Your task to perform on an android device: turn on location history Image 0: 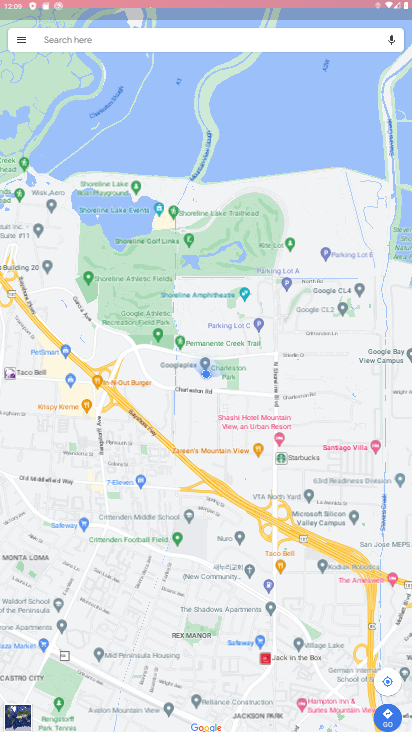
Step 0: press home button
Your task to perform on an android device: turn on location history Image 1: 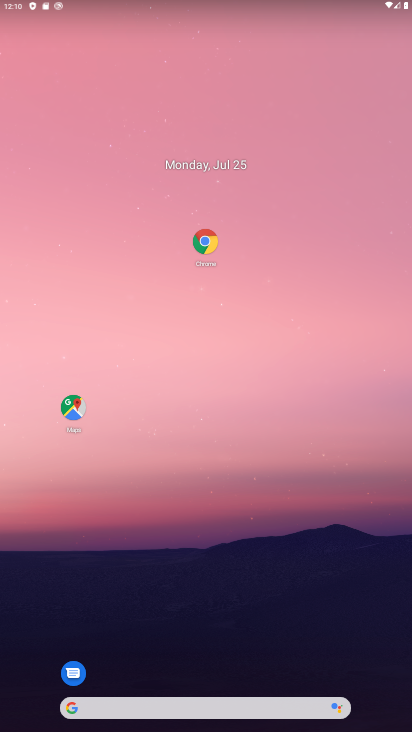
Step 1: drag from (305, 657) to (285, 38)
Your task to perform on an android device: turn on location history Image 2: 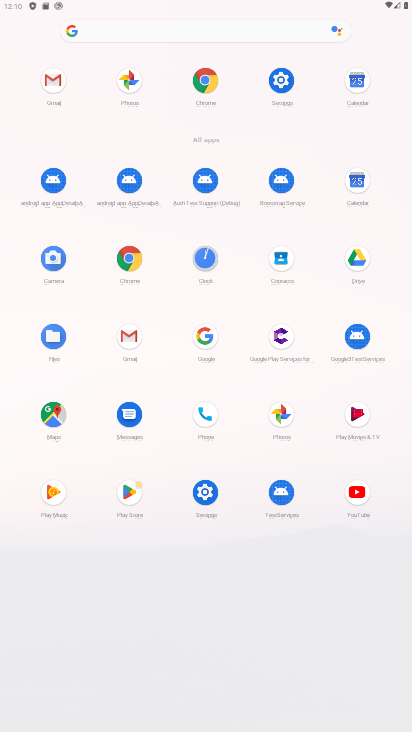
Step 2: click (272, 75)
Your task to perform on an android device: turn on location history Image 3: 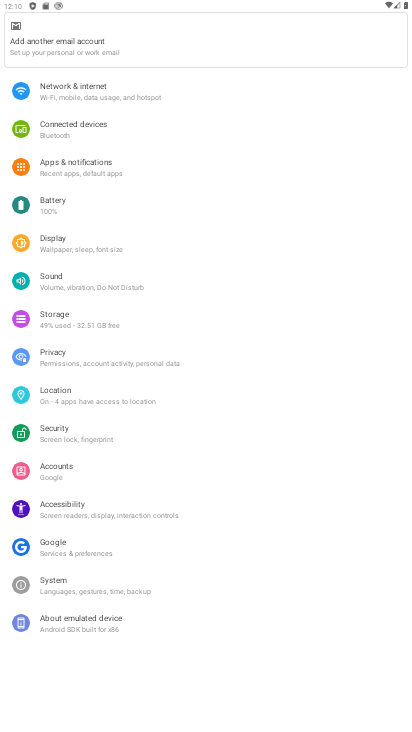
Step 3: click (73, 392)
Your task to perform on an android device: turn on location history Image 4: 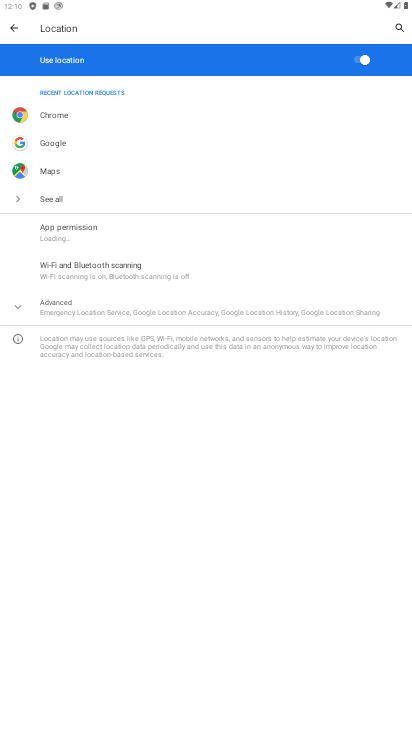
Step 4: task complete